Your task to perform on an android device: open a bookmark in the chrome app Image 0: 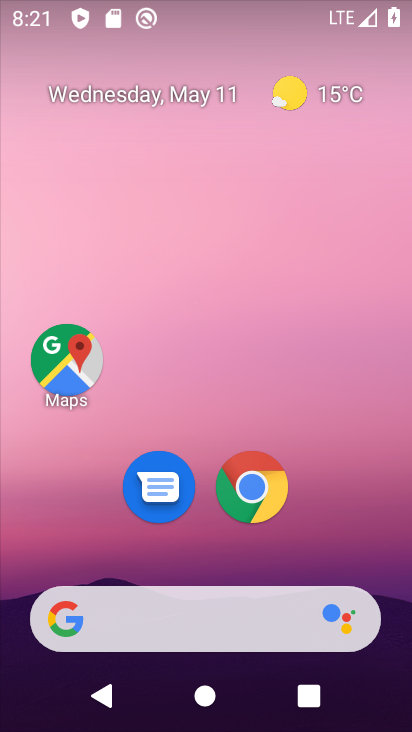
Step 0: drag from (344, 667) to (262, 177)
Your task to perform on an android device: open a bookmark in the chrome app Image 1: 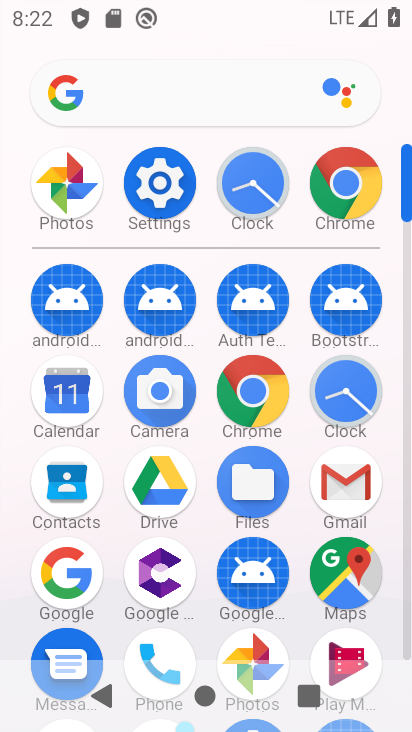
Step 1: click (332, 181)
Your task to perform on an android device: open a bookmark in the chrome app Image 2: 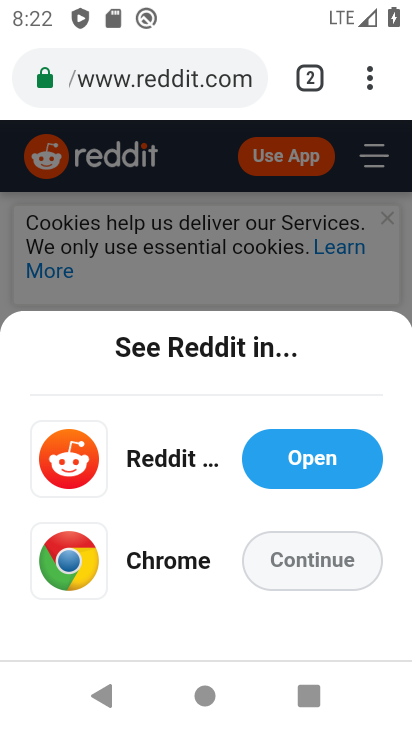
Step 2: click (224, 279)
Your task to perform on an android device: open a bookmark in the chrome app Image 3: 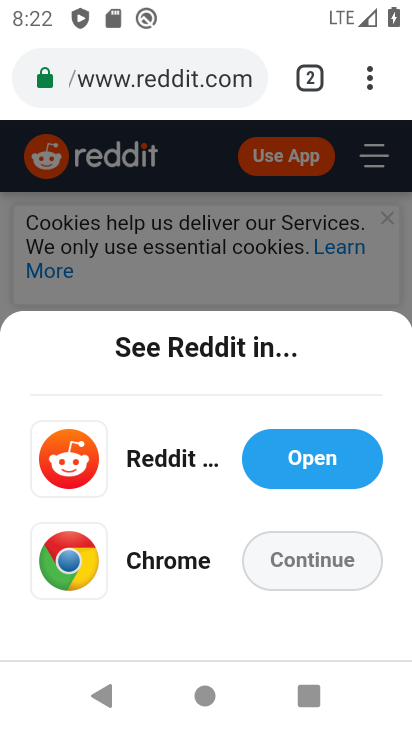
Step 3: press back button
Your task to perform on an android device: open a bookmark in the chrome app Image 4: 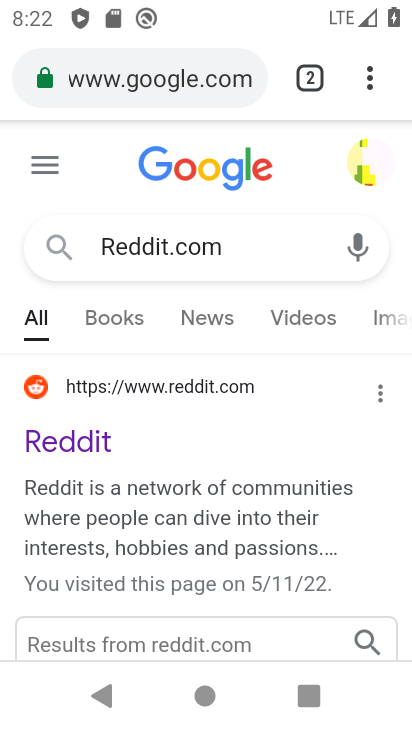
Step 4: click (364, 86)
Your task to perform on an android device: open a bookmark in the chrome app Image 5: 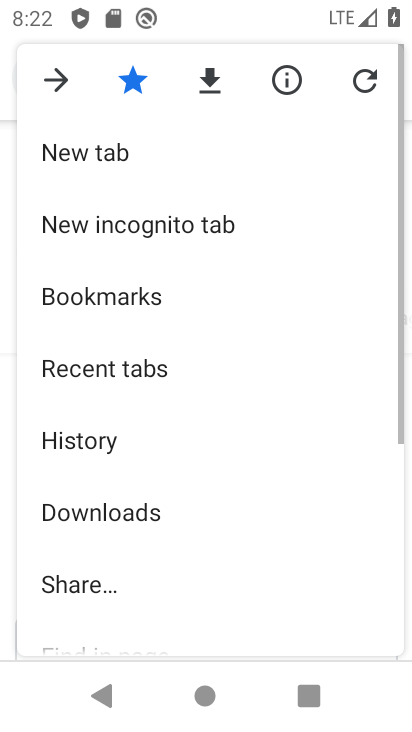
Step 5: click (144, 298)
Your task to perform on an android device: open a bookmark in the chrome app Image 6: 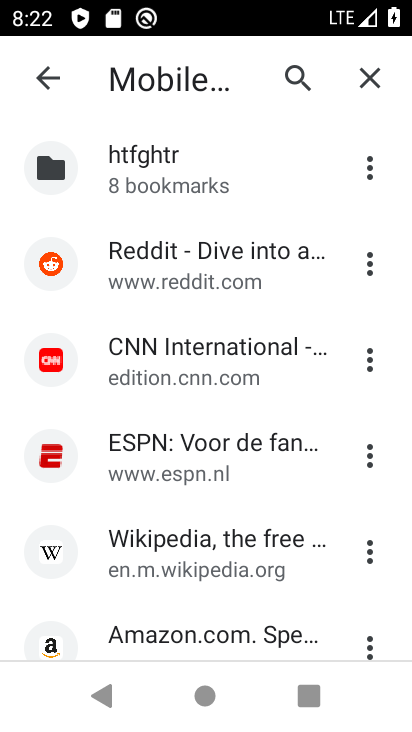
Step 6: click (146, 455)
Your task to perform on an android device: open a bookmark in the chrome app Image 7: 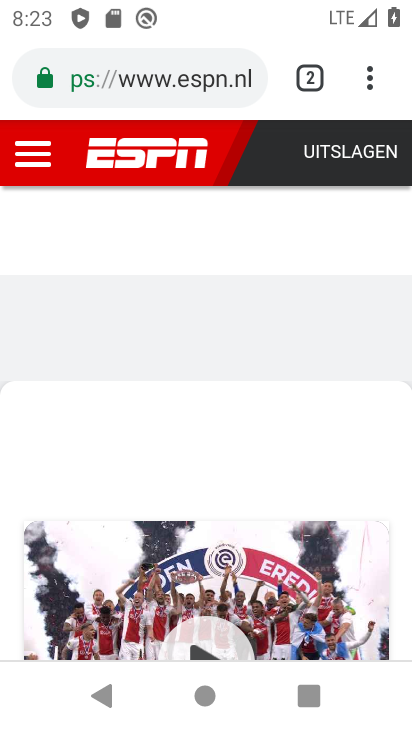
Step 7: task complete